Your task to perform on an android device: See recent photos Image 0: 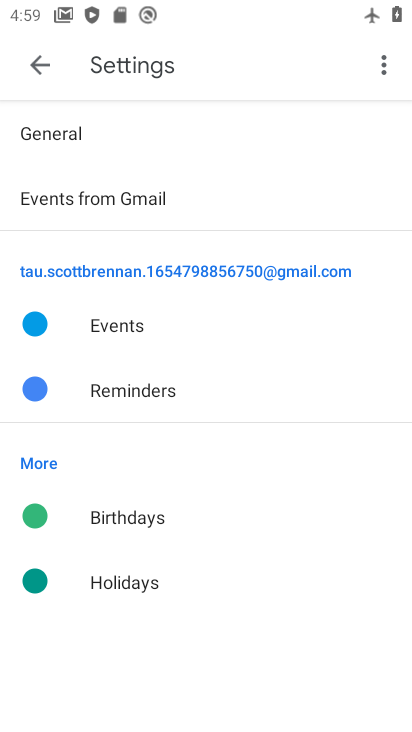
Step 0: click (25, 69)
Your task to perform on an android device: See recent photos Image 1: 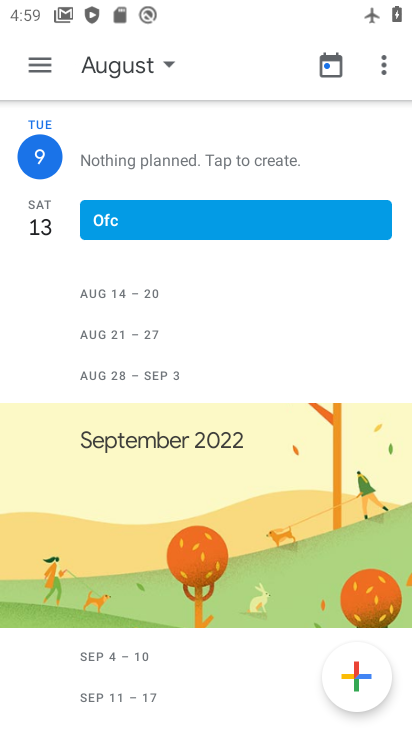
Step 1: press back button
Your task to perform on an android device: See recent photos Image 2: 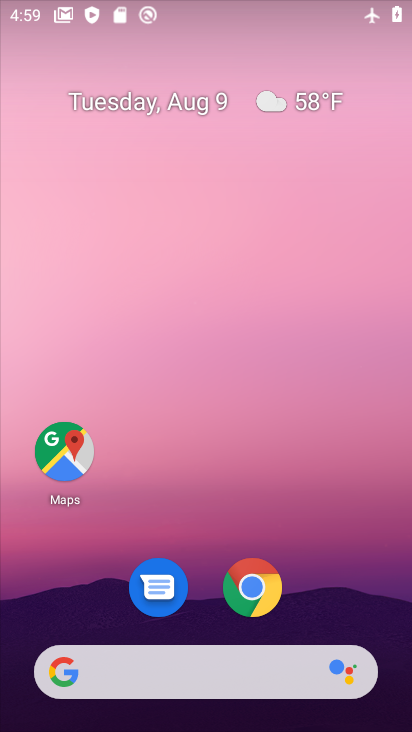
Step 2: drag from (251, 651) to (205, 47)
Your task to perform on an android device: See recent photos Image 3: 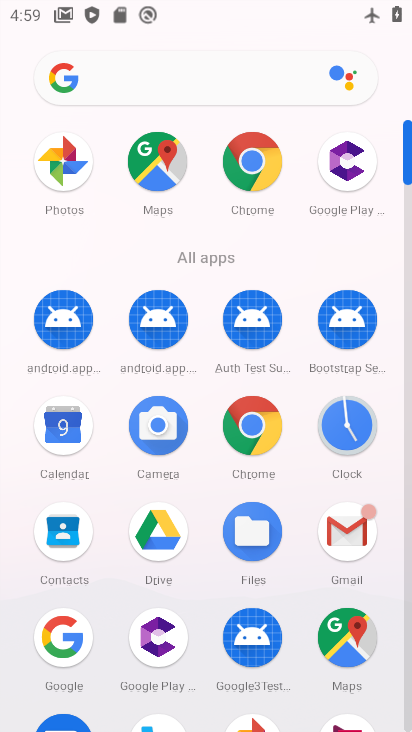
Step 3: drag from (177, 666) to (152, 118)
Your task to perform on an android device: See recent photos Image 4: 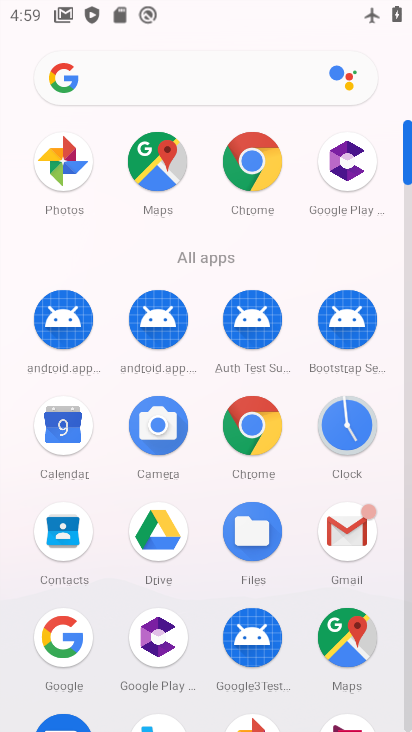
Step 4: drag from (205, 503) to (178, 101)
Your task to perform on an android device: See recent photos Image 5: 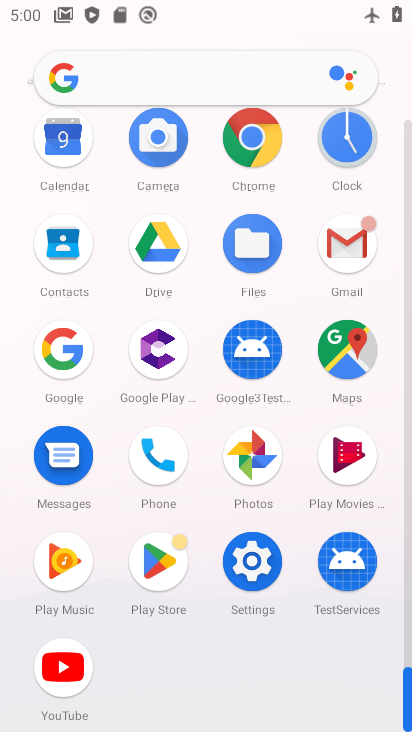
Step 5: click (250, 456)
Your task to perform on an android device: See recent photos Image 6: 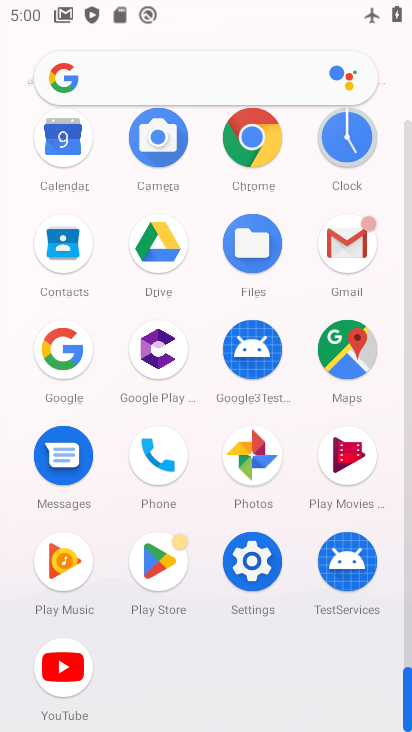
Step 6: click (250, 456)
Your task to perform on an android device: See recent photos Image 7: 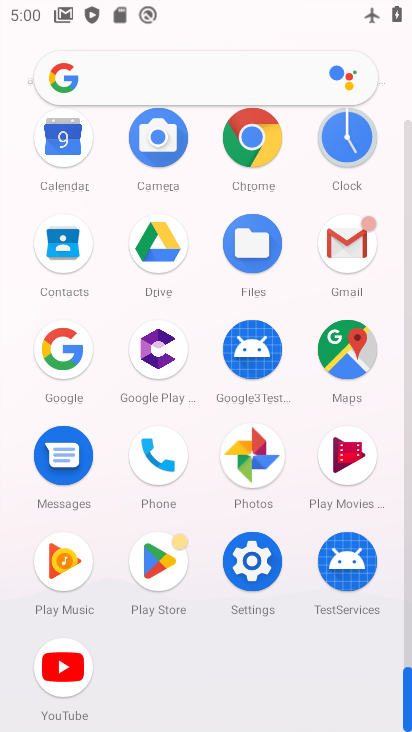
Step 7: click (249, 484)
Your task to perform on an android device: See recent photos Image 8: 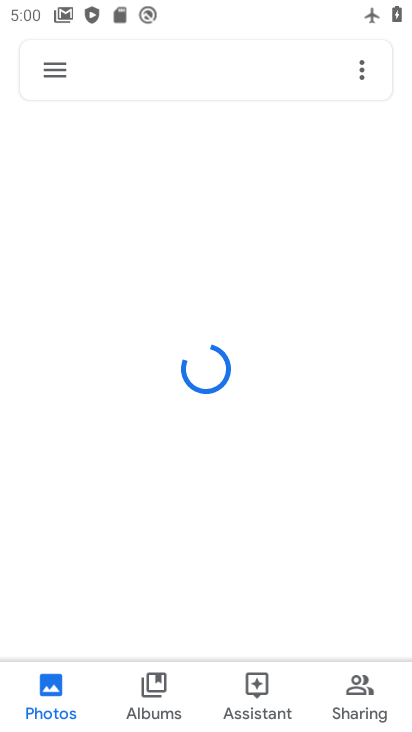
Step 8: task complete